Your task to perform on an android device: change the clock display to digital Image 0: 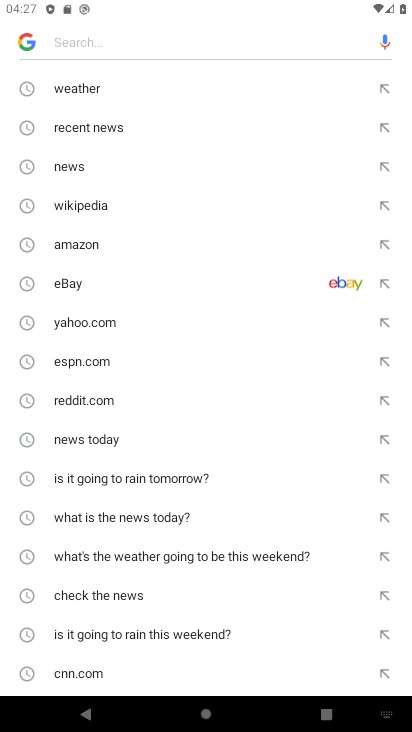
Step 0: press back button
Your task to perform on an android device: change the clock display to digital Image 1: 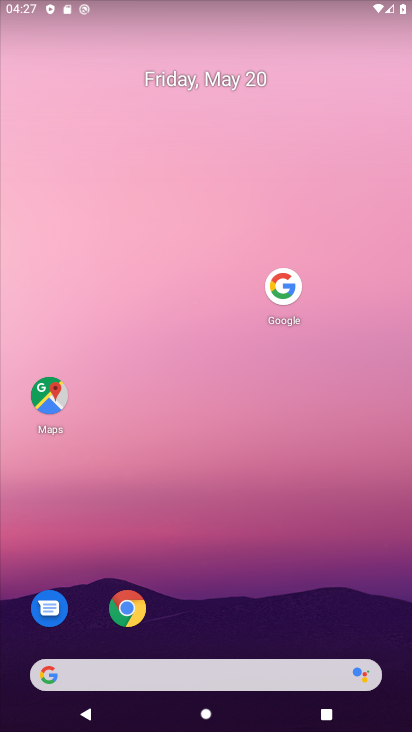
Step 1: drag from (220, 648) to (140, 44)
Your task to perform on an android device: change the clock display to digital Image 2: 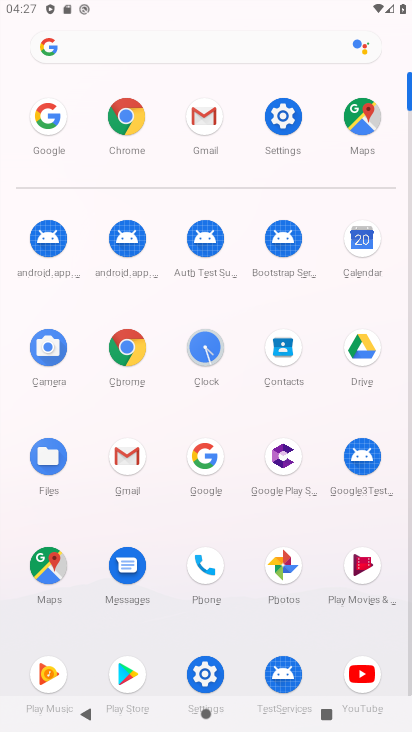
Step 2: click (199, 348)
Your task to perform on an android device: change the clock display to digital Image 3: 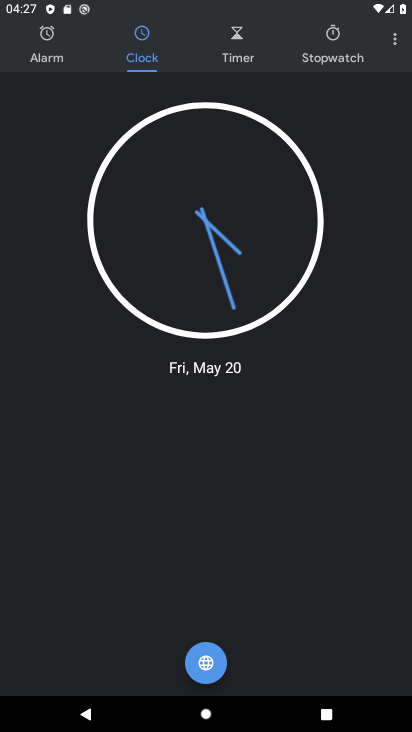
Step 3: drag from (393, 42) to (320, 73)
Your task to perform on an android device: change the clock display to digital Image 4: 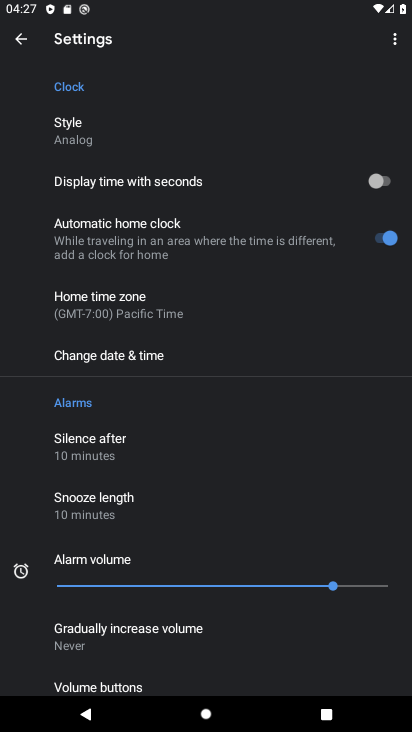
Step 4: click (115, 138)
Your task to perform on an android device: change the clock display to digital Image 5: 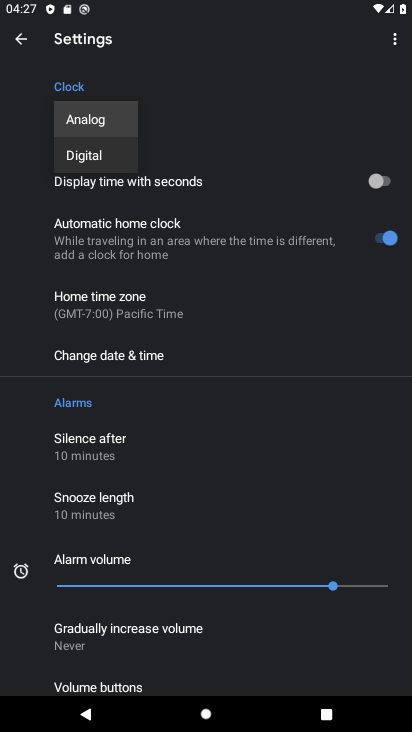
Step 5: click (99, 161)
Your task to perform on an android device: change the clock display to digital Image 6: 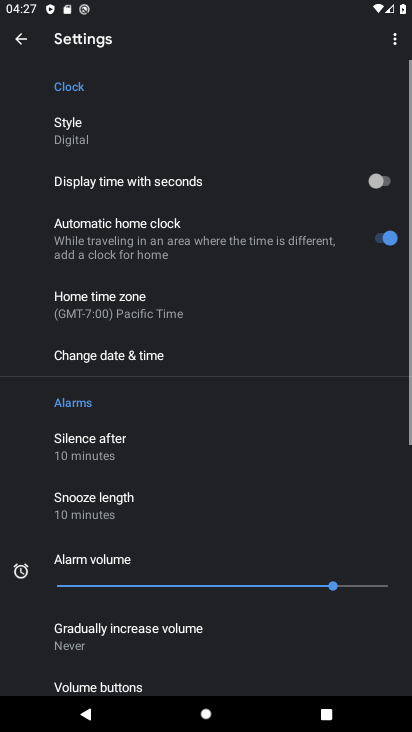
Step 6: task complete